Your task to perform on an android device: open chrome privacy settings Image 0: 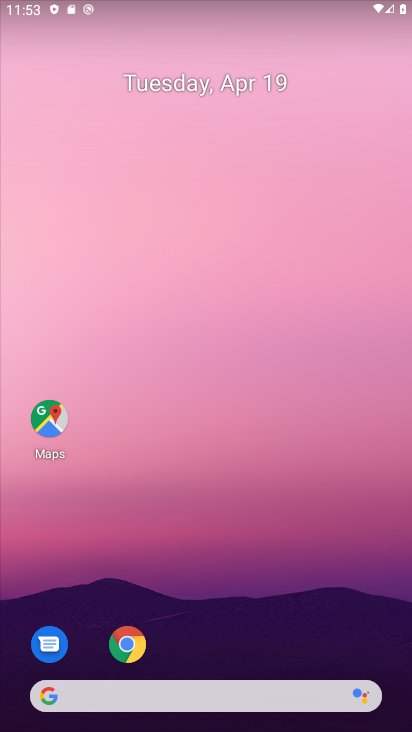
Step 0: click (130, 642)
Your task to perform on an android device: open chrome privacy settings Image 1: 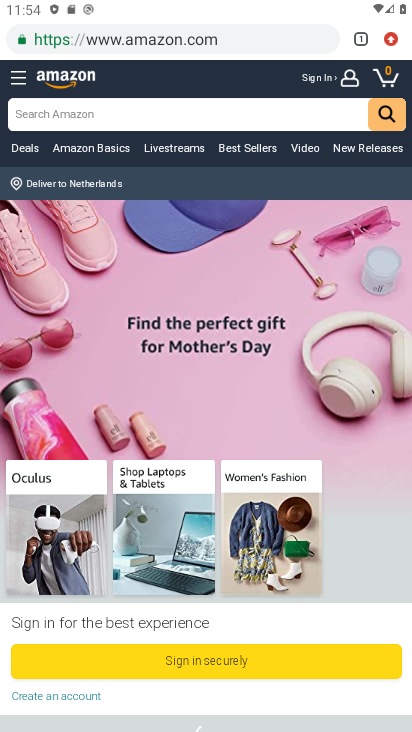
Step 1: click (387, 29)
Your task to perform on an android device: open chrome privacy settings Image 2: 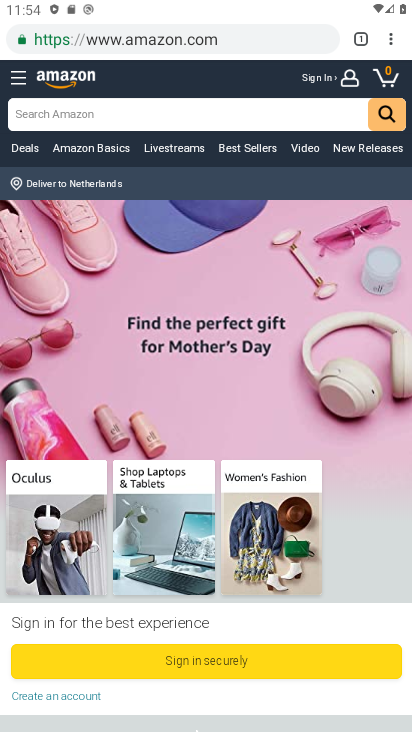
Step 2: click (392, 40)
Your task to perform on an android device: open chrome privacy settings Image 3: 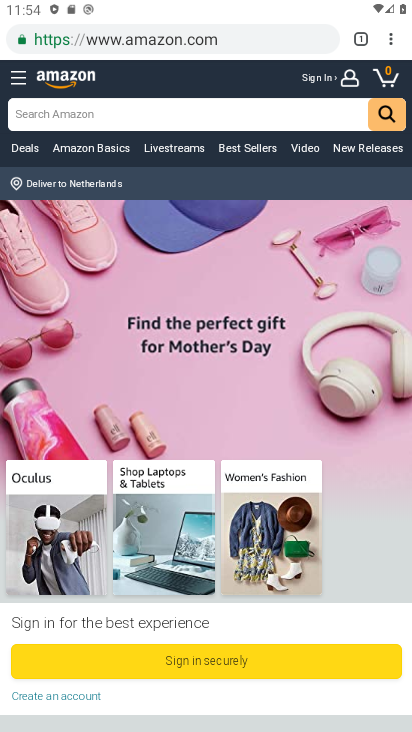
Step 3: drag from (391, 35) to (283, 519)
Your task to perform on an android device: open chrome privacy settings Image 4: 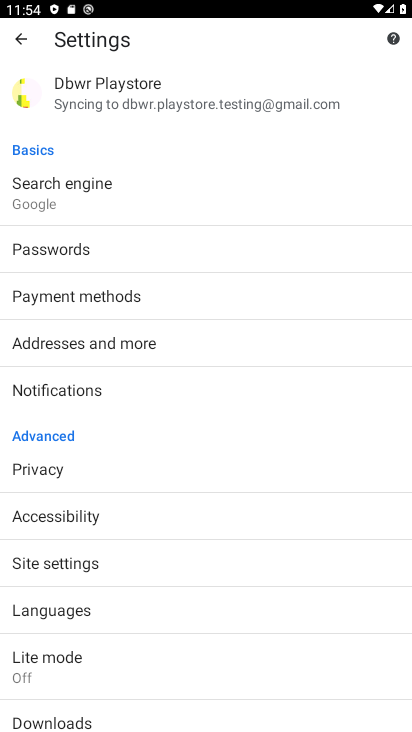
Step 4: click (202, 469)
Your task to perform on an android device: open chrome privacy settings Image 5: 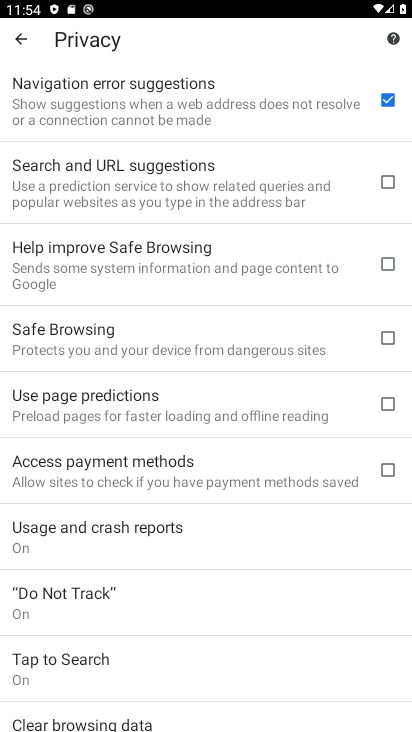
Step 5: task complete